Your task to perform on an android device: Go to battery settings Image 0: 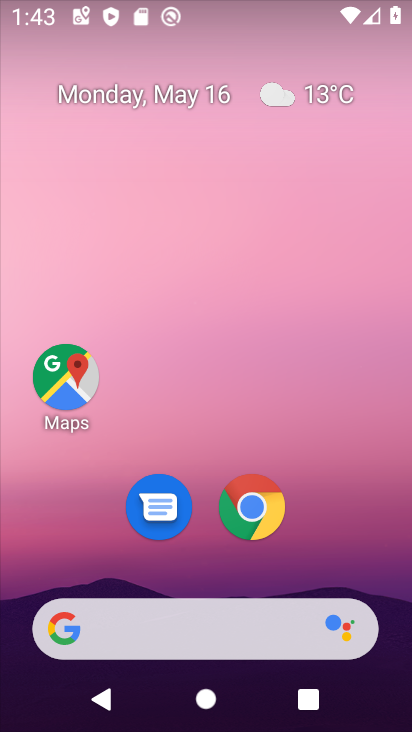
Step 0: drag from (379, 552) to (370, 65)
Your task to perform on an android device: Go to battery settings Image 1: 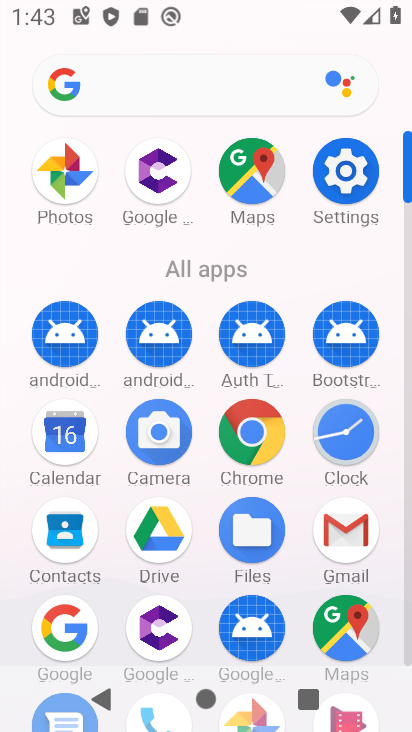
Step 1: click (357, 188)
Your task to perform on an android device: Go to battery settings Image 2: 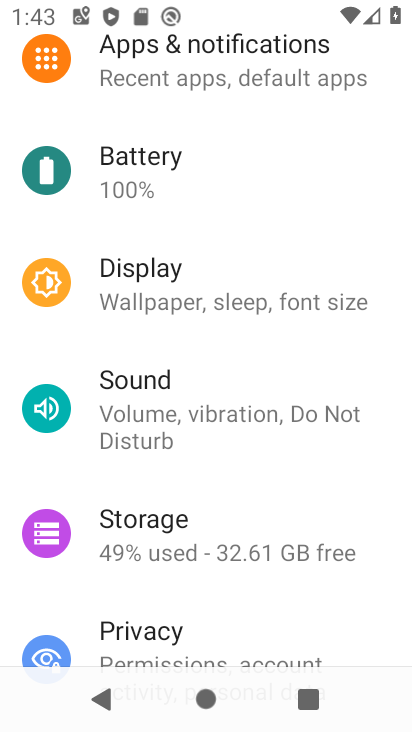
Step 2: drag from (392, 231) to (383, 423)
Your task to perform on an android device: Go to battery settings Image 3: 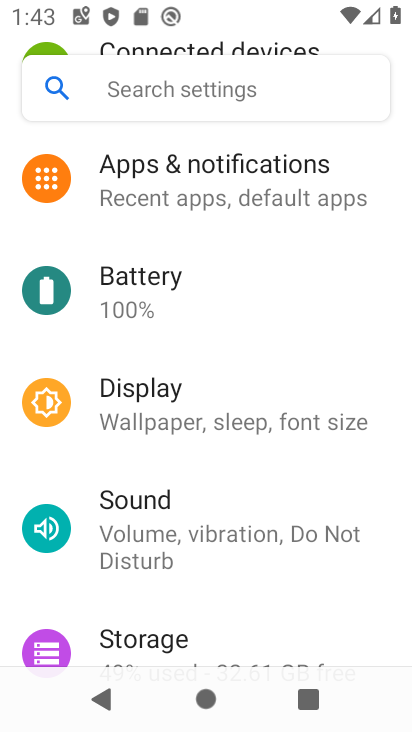
Step 3: drag from (346, 291) to (351, 475)
Your task to perform on an android device: Go to battery settings Image 4: 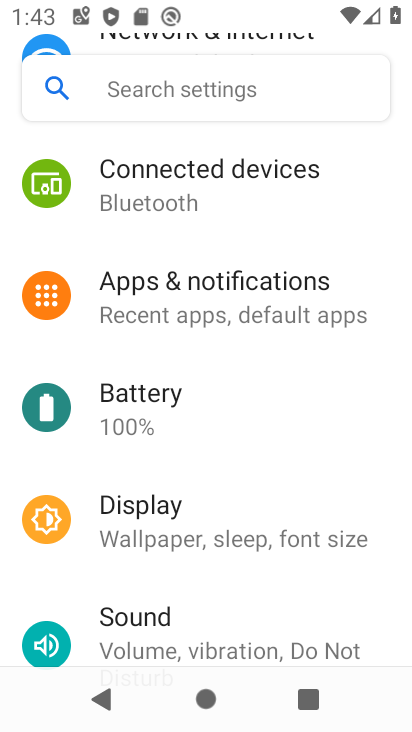
Step 4: drag from (378, 253) to (375, 432)
Your task to perform on an android device: Go to battery settings Image 5: 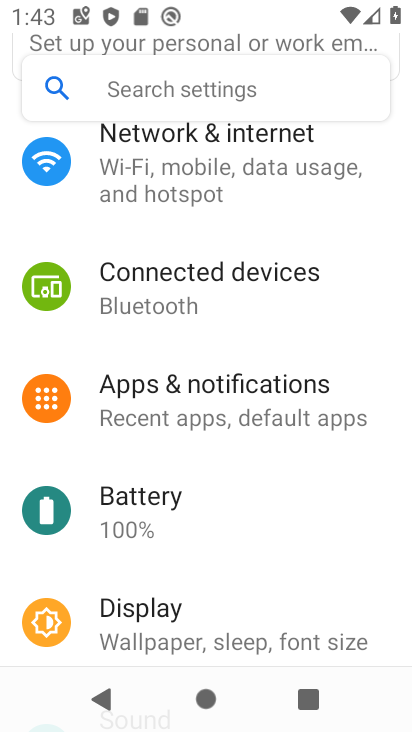
Step 5: click (167, 533)
Your task to perform on an android device: Go to battery settings Image 6: 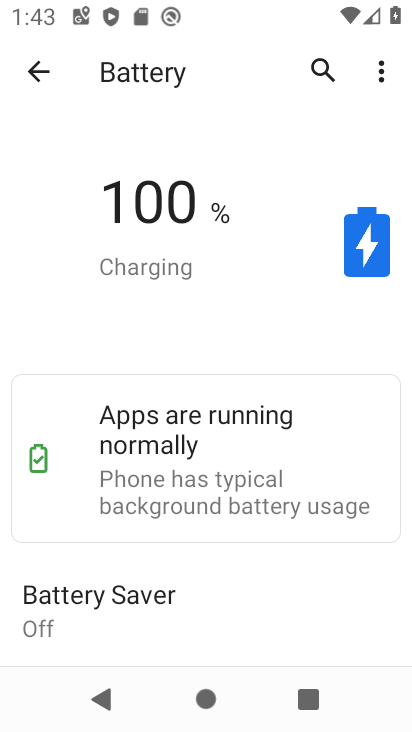
Step 6: task complete